Your task to perform on an android device: Open Android settings Image 0: 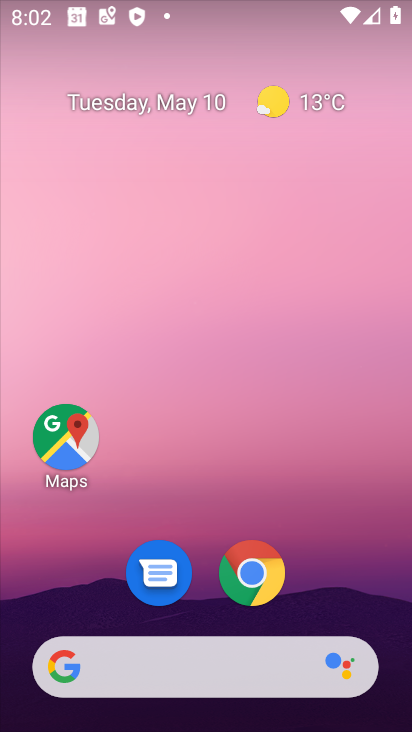
Step 0: drag from (382, 610) to (382, 18)
Your task to perform on an android device: Open Android settings Image 1: 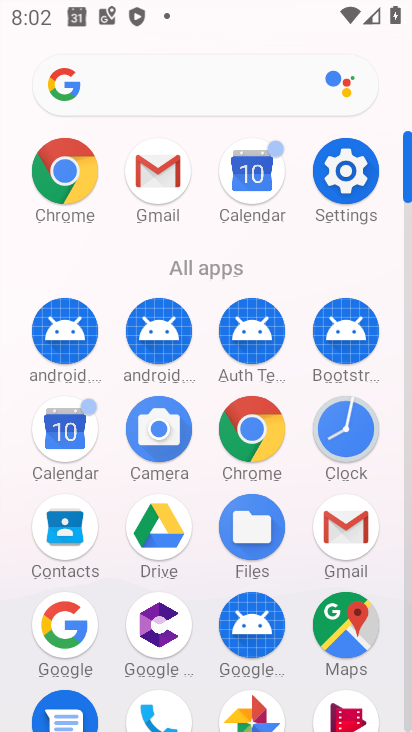
Step 1: click (352, 168)
Your task to perform on an android device: Open Android settings Image 2: 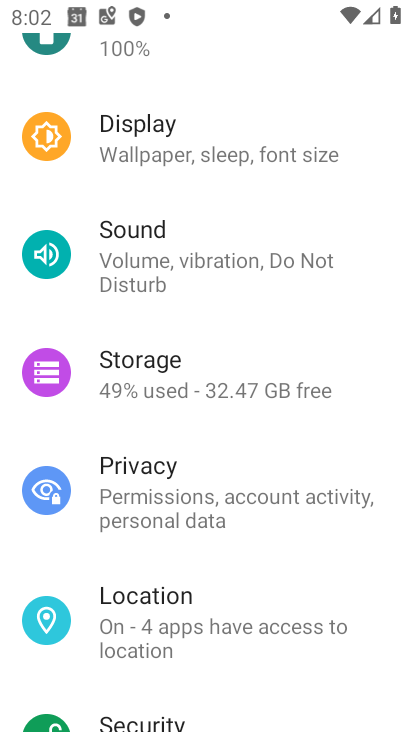
Step 2: task complete